Your task to perform on an android device: open sync settings in chrome Image 0: 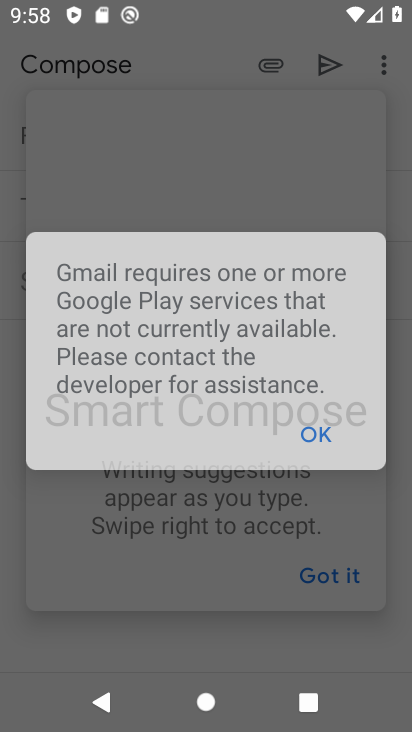
Step 0: drag from (241, 592) to (158, 155)
Your task to perform on an android device: open sync settings in chrome Image 1: 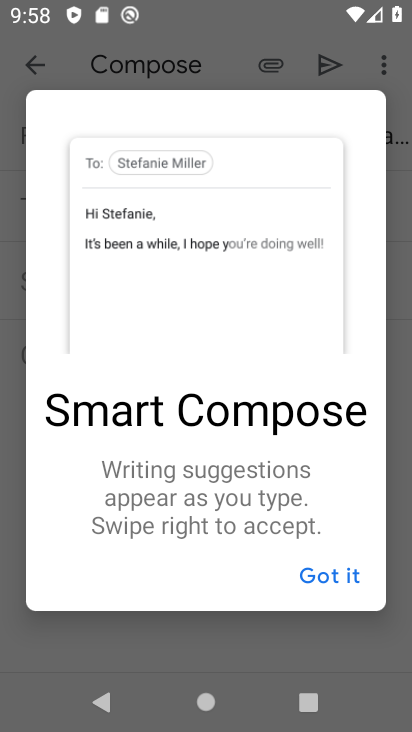
Step 1: press home button
Your task to perform on an android device: open sync settings in chrome Image 2: 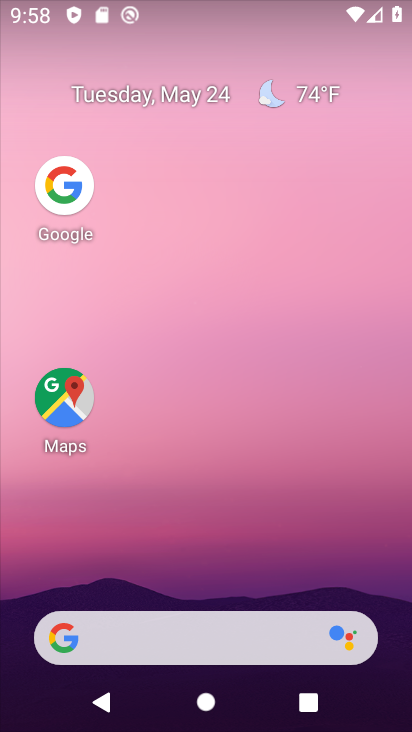
Step 2: drag from (202, 599) to (194, 137)
Your task to perform on an android device: open sync settings in chrome Image 3: 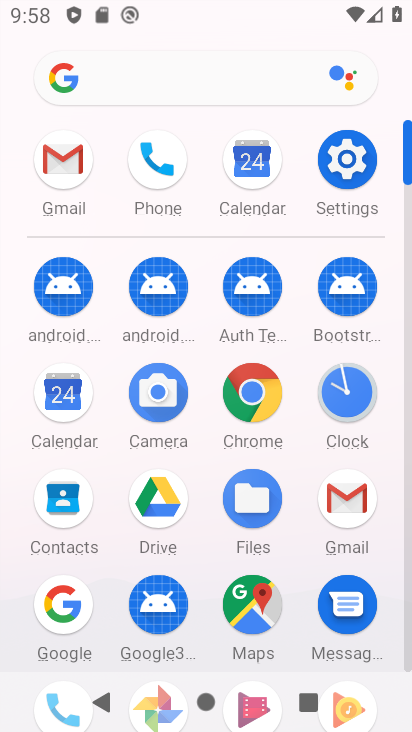
Step 3: click (263, 394)
Your task to perform on an android device: open sync settings in chrome Image 4: 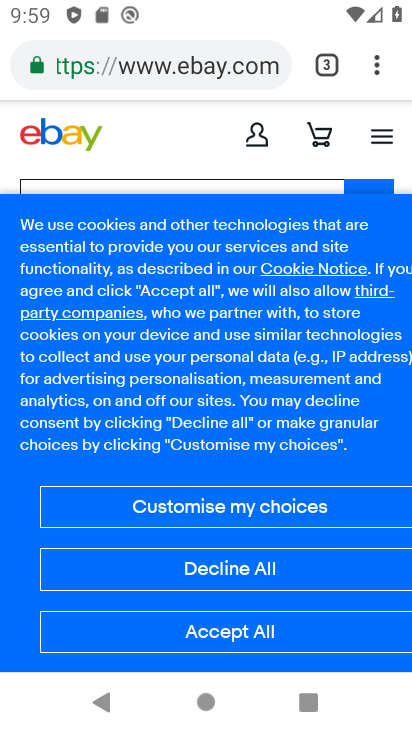
Step 4: click (377, 73)
Your task to perform on an android device: open sync settings in chrome Image 5: 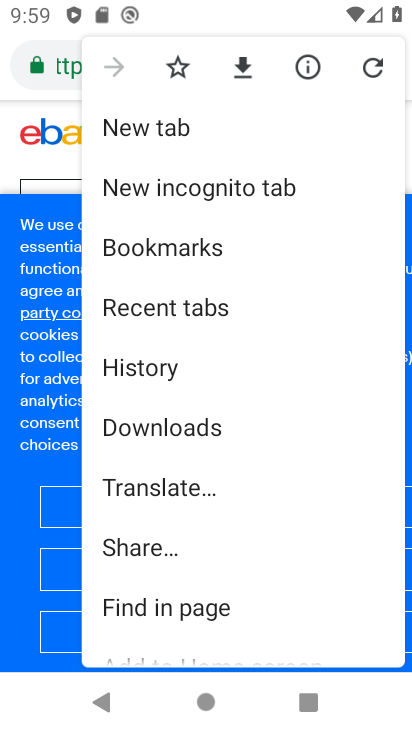
Step 5: drag from (188, 534) to (158, 114)
Your task to perform on an android device: open sync settings in chrome Image 6: 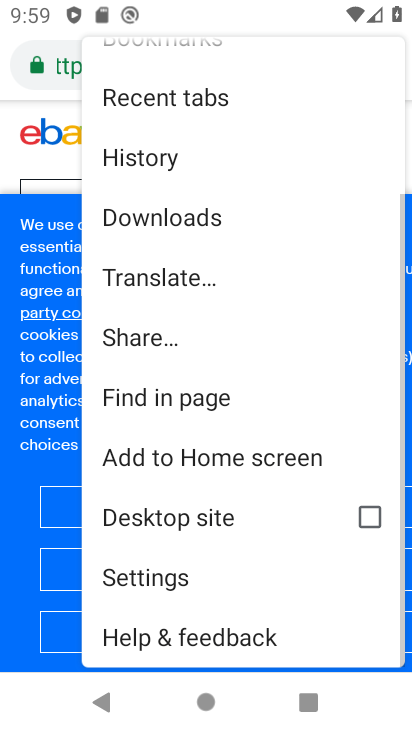
Step 6: click (165, 589)
Your task to perform on an android device: open sync settings in chrome Image 7: 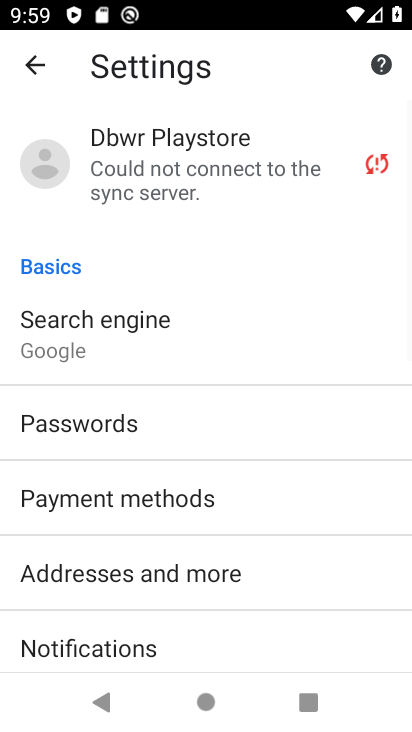
Step 7: click (136, 154)
Your task to perform on an android device: open sync settings in chrome Image 8: 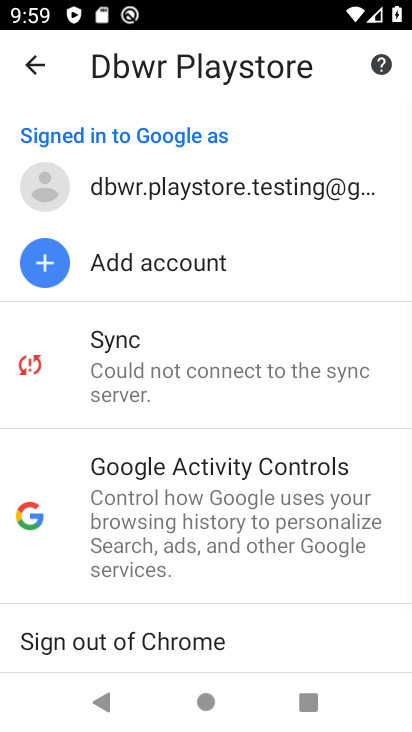
Step 8: click (171, 338)
Your task to perform on an android device: open sync settings in chrome Image 9: 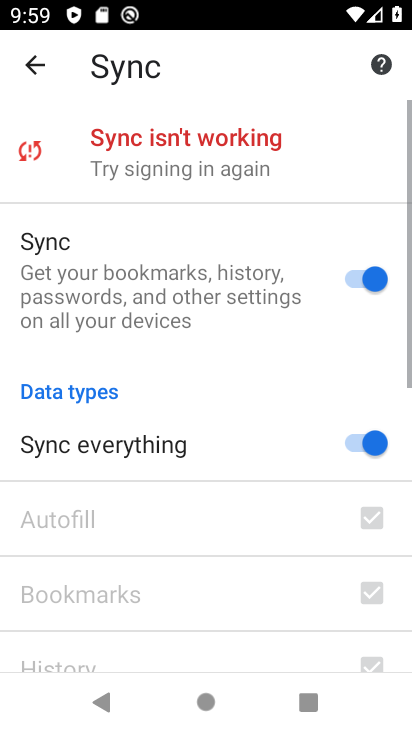
Step 9: task complete